Your task to perform on an android device: turn on the 12-hour format for clock Image 0: 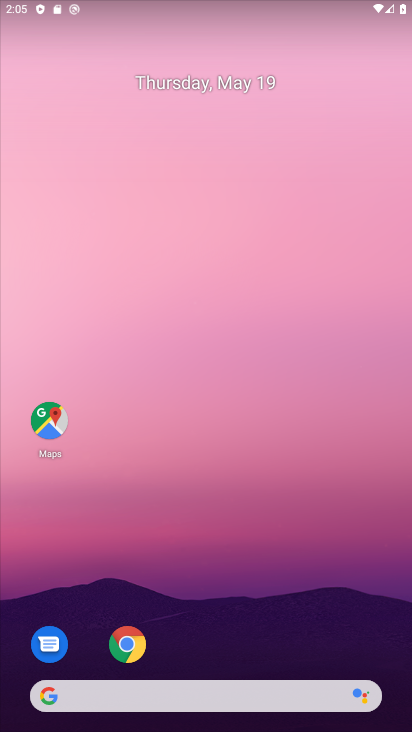
Step 0: drag from (222, 506) to (266, 214)
Your task to perform on an android device: turn on the 12-hour format for clock Image 1: 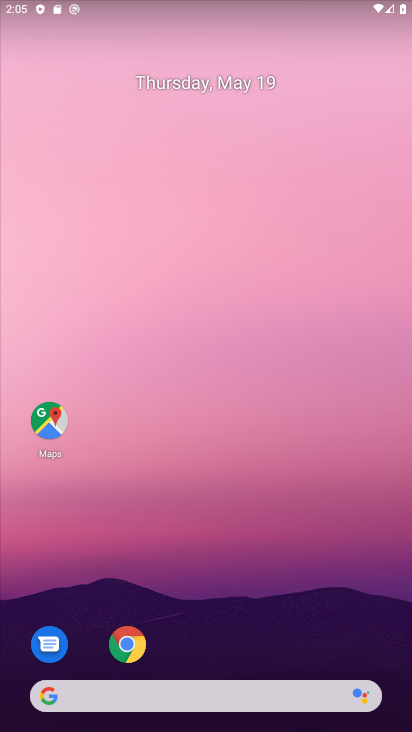
Step 1: drag from (254, 567) to (249, 255)
Your task to perform on an android device: turn on the 12-hour format for clock Image 2: 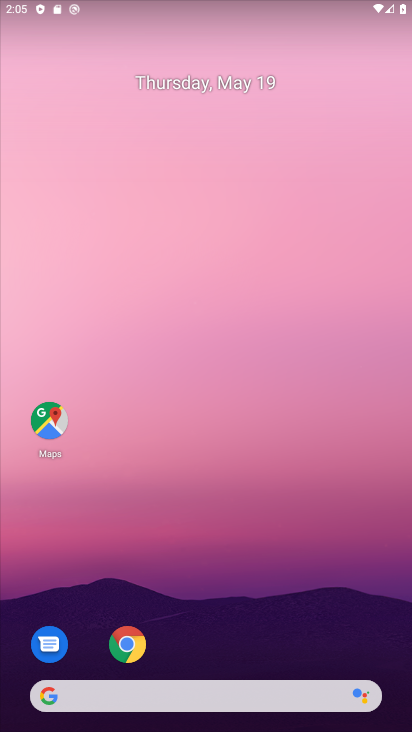
Step 2: drag from (282, 659) to (295, 253)
Your task to perform on an android device: turn on the 12-hour format for clock Image 3: 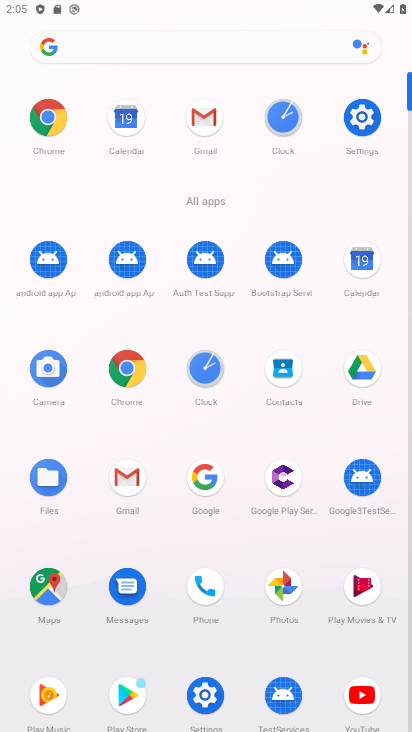
Step 3: click (214, 354)
Your task to perform on an android device: turn on the 12-hour format for clock Image 4: 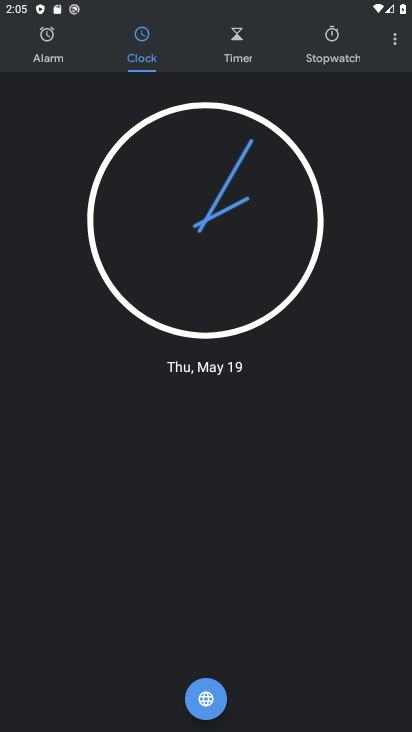
Step 4: click (389, 34)
Your task to perform on an android device: turn on the 12-hour format for clock Image 5: 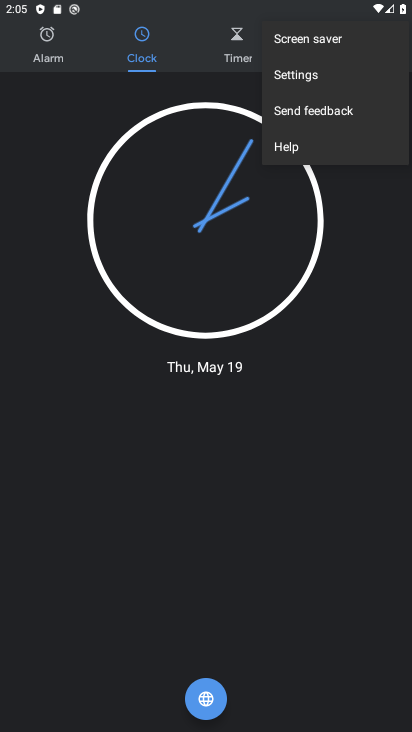
Step 5: click (301, 78)
Your task to perform on an android device: turn on the 12-hour format for clock Image 6: 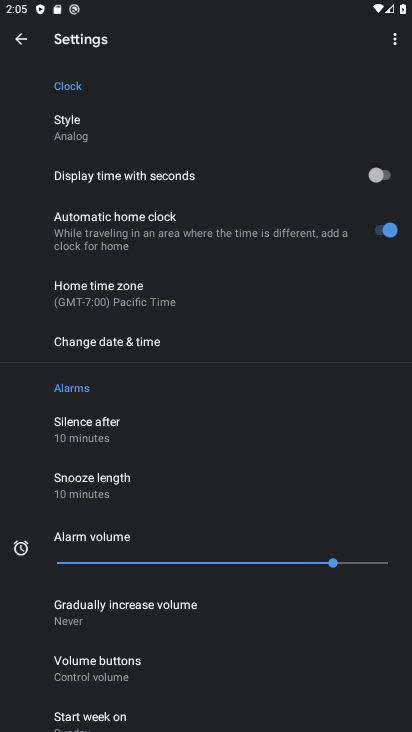
Step 6: click (157, 333)
Your task to perform on an android device: turn on the 12-hour format for clock Image 7: 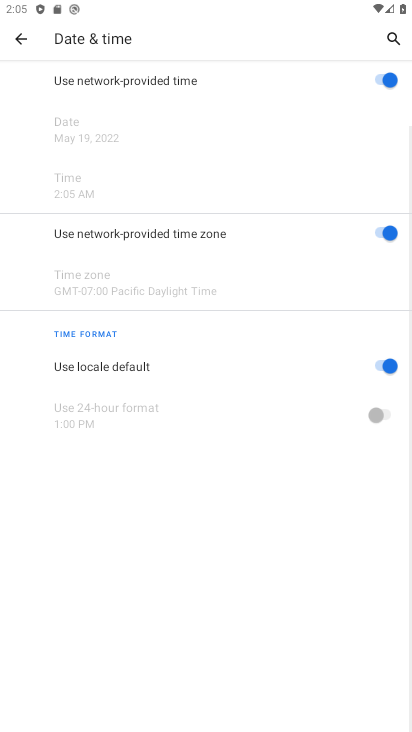
Step 7: click (370, 362)
Your task to perform on an android device: turn on the 12-hour format for clock Image 8: 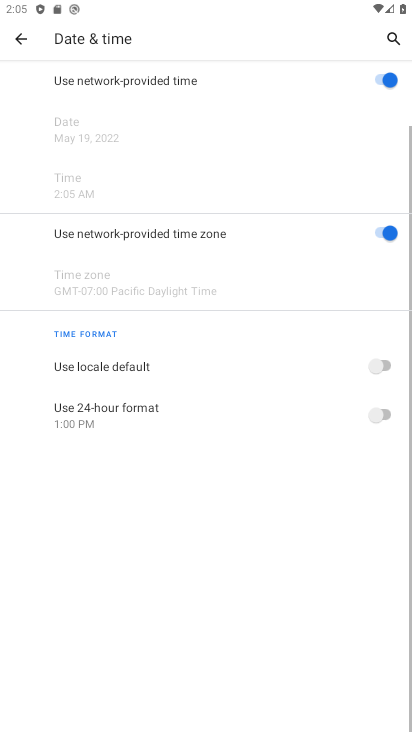
Step 8: click (375, 413)
Your task to perform on an android device: turn on the 12-hour format for clock Image 9: 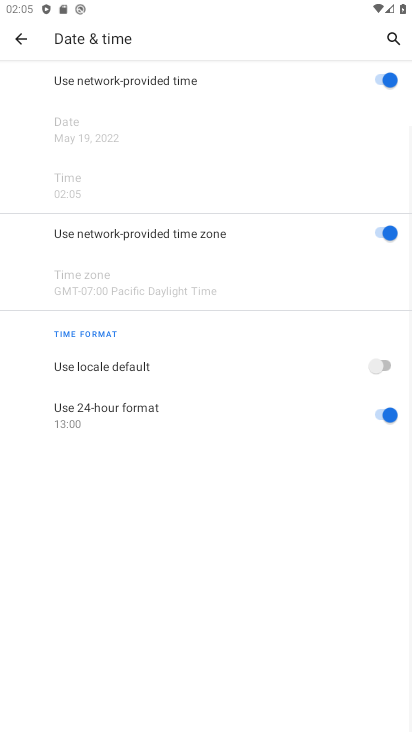
Step 9: task complete